Your task to perform on an android device: Go to display settings Image 0: 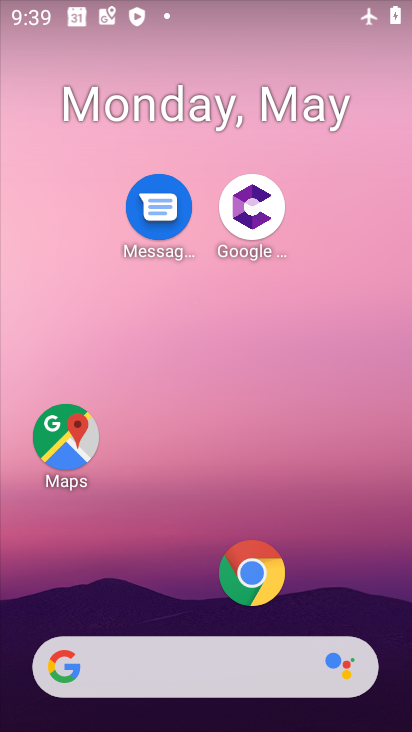
Step 0: drag from (215, 700) to (239, 202)
Your task to perform on an android device: Go to display settings Image 1: 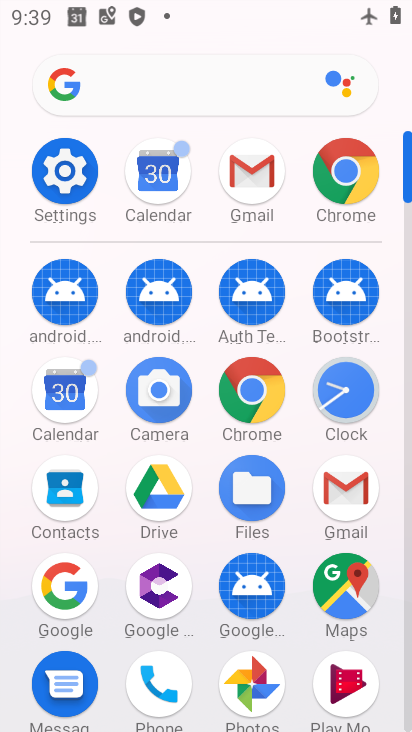
Step 1: click (69, 182)
Your task to perform on an android device: Go to display settings Image 2: 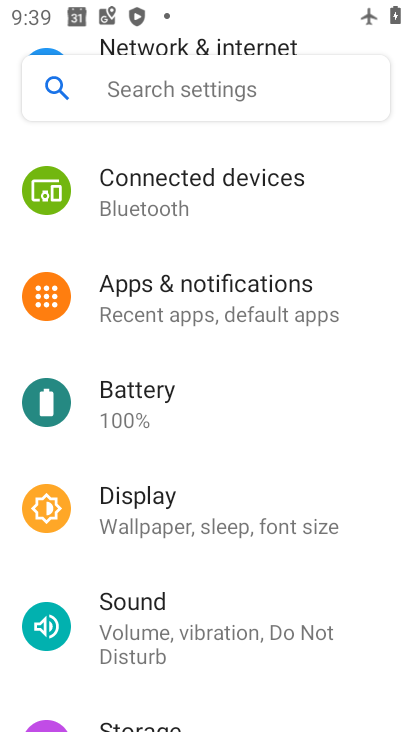
Step 2: click (209, 511)
Your task to perform on an android device: Go to display settings Image 3: 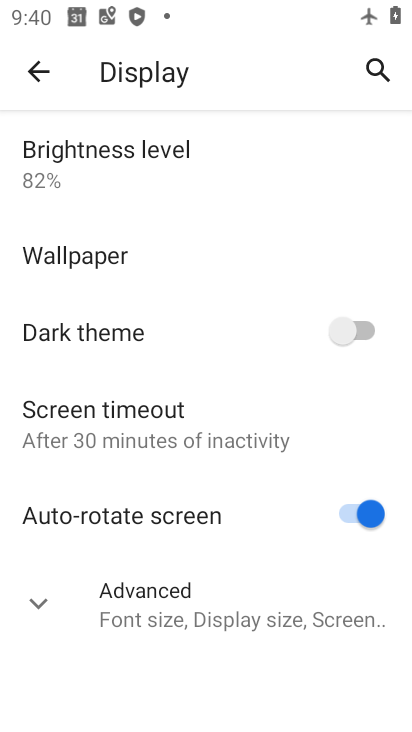
Step 3: task complete